Your task to perform on an android device: Do I have any events tomorrow? Image 0: 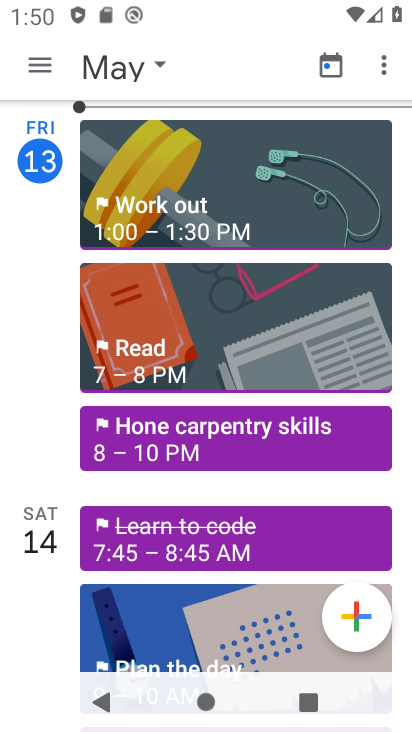
Step 0: click (57, 73)
Your task to perform on an android device: Do I have any events tomorrow? Image 1: 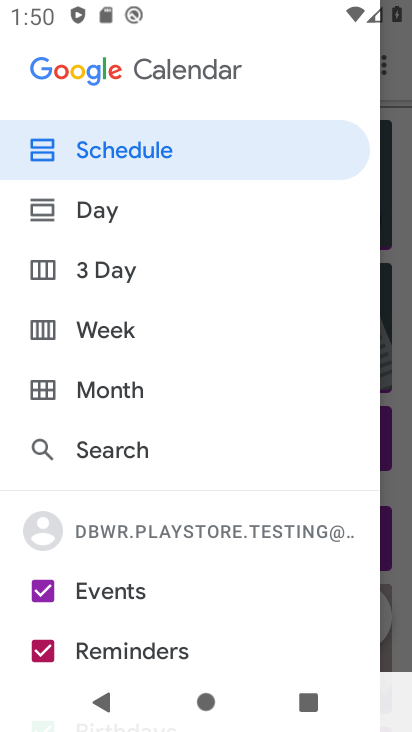
Step 1: click (44, 656)
Your task to perform on an android device: Do I have any events tomorrow? Image 2: 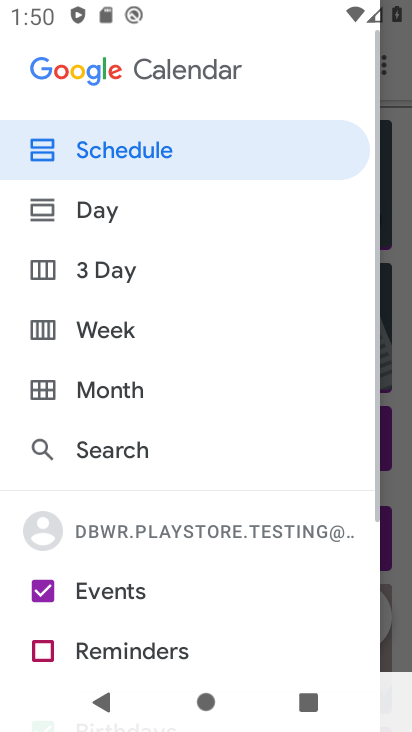
Step 2: drag from (44, 656) to (89, 169)
Your task to perform on an android device: Do I have any events tomorrow? Image 3: 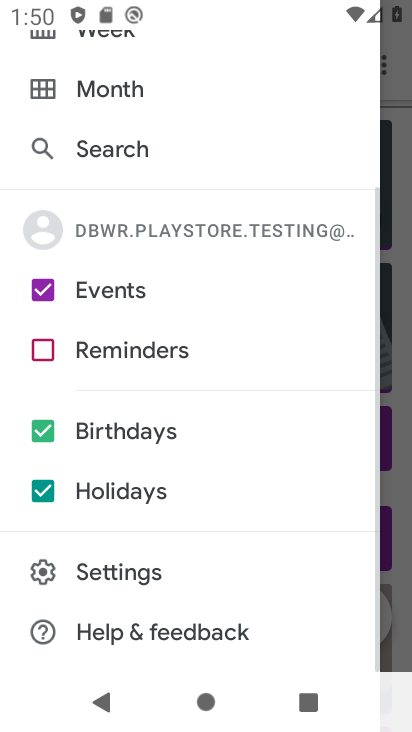
Step 3: click (43, 434)
Your task to perform on an android device: Do I have any events tomorrow? Image 4: 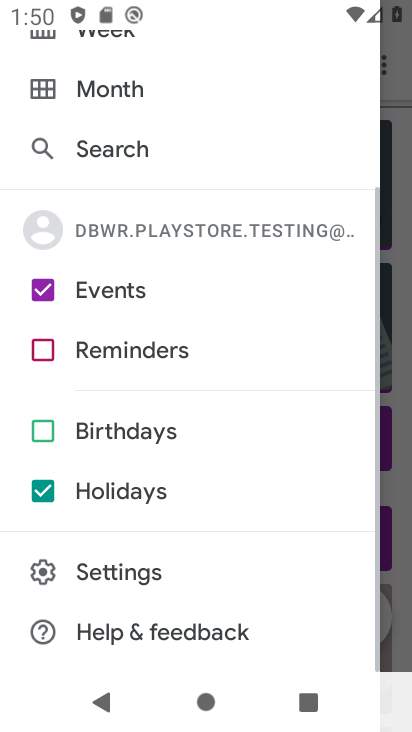
Step 4: click (43, 491)
Your task to perform on an android device: Do I have any events tomorrow? Image 5: 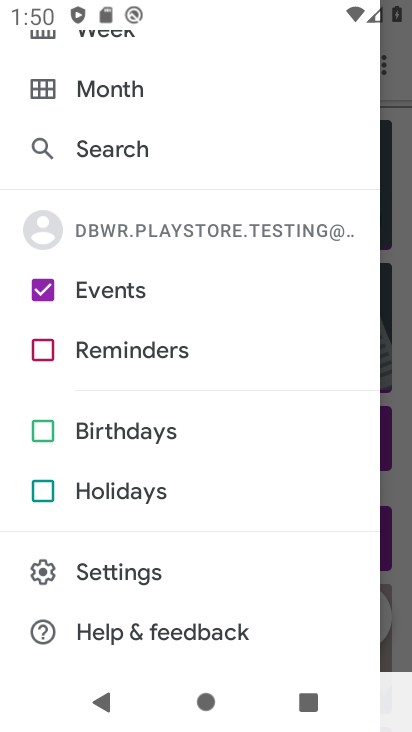
Step 5: click (392, 529)
Your task to perform on an android device: Do I have any events tomorrow? Image 6: 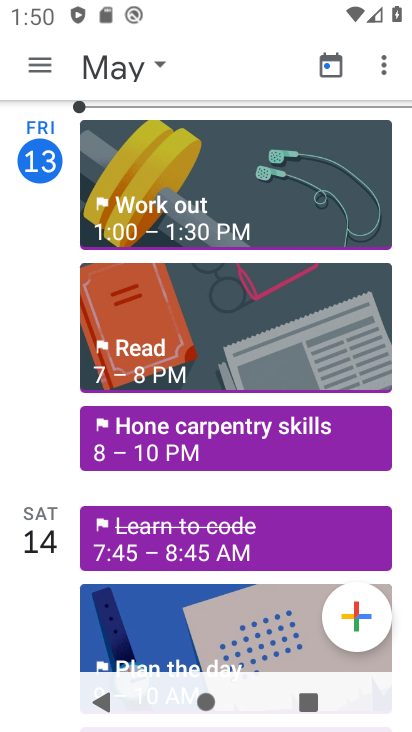
Step 6: click (160, 532)
Your task to perform on an android device: Do I have any events tomorrow? Image 7: 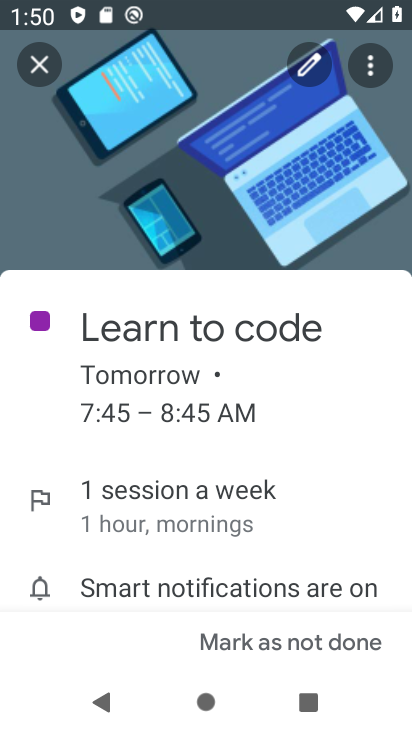
Step 7: task complete